Your task to perform on an android device: star an email in the gmail app Image 0: 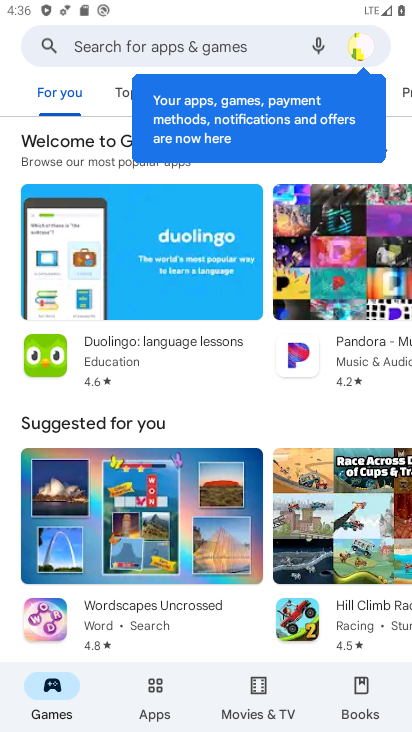
Step 0: press home button
Your task to perform on an android device: star an email in the gmail app Image 1: 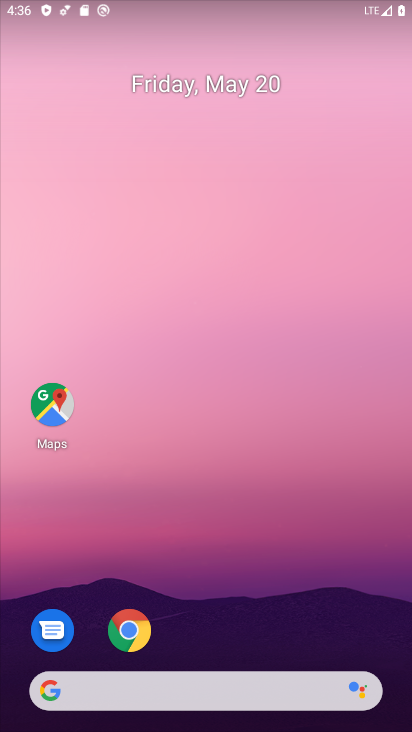
Step 1: drag from (208, 489) to (291, 55)
Your task to perform on an android device: star an email in the gmail app Image 2: 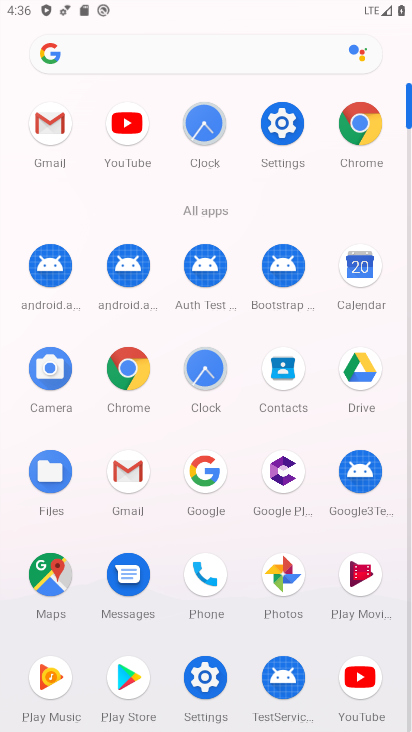
Step 2: click (52, 135)
Your task to perform on an android device: star an email in the gmail app Image 3: 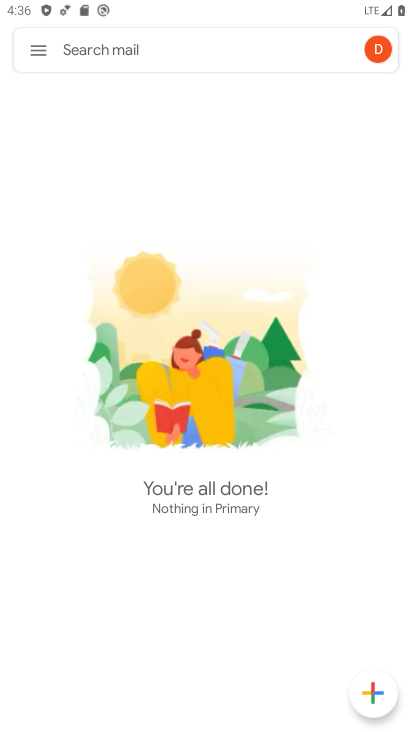
Step 3: click (38, 53)
Your task to perform on an android device: star an email in the gmail app Image 4: 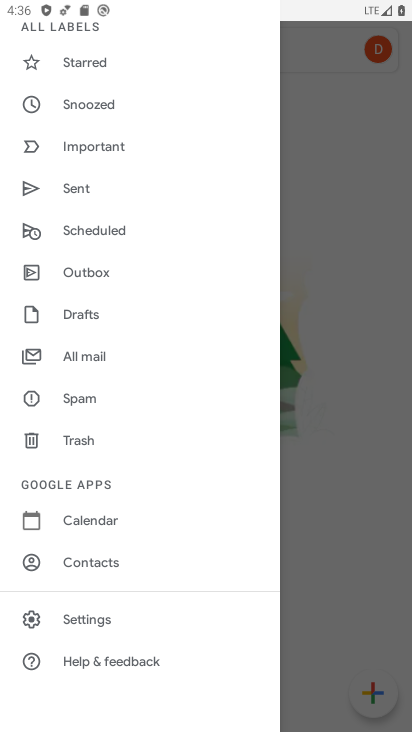
Step 4: click (102, 355)
Your task to perform on an android device: star an email in the gmail app Image 5: 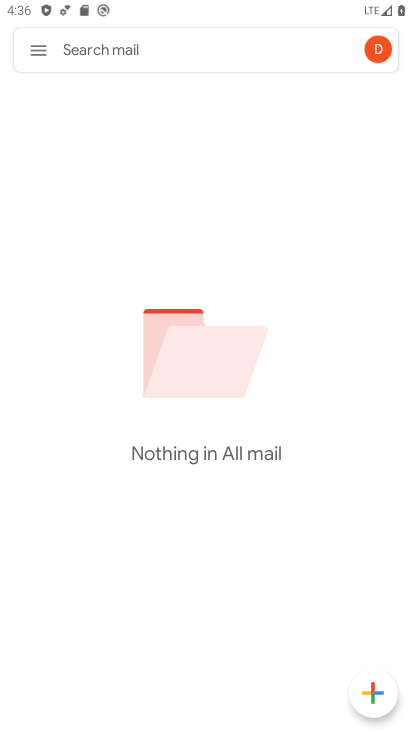
Step 5: task complete